Your task to perform on an android device: Go to Yahoo.com Image 0: 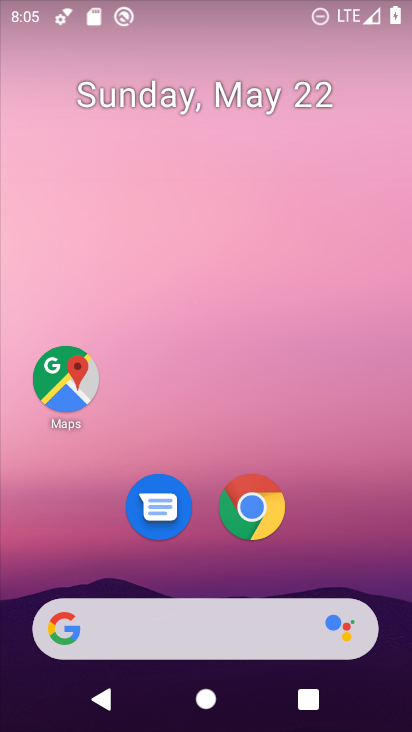
Step 0: click (213, 614)
Your task to perform on an android device: Go to Yahoo.com Image 1: 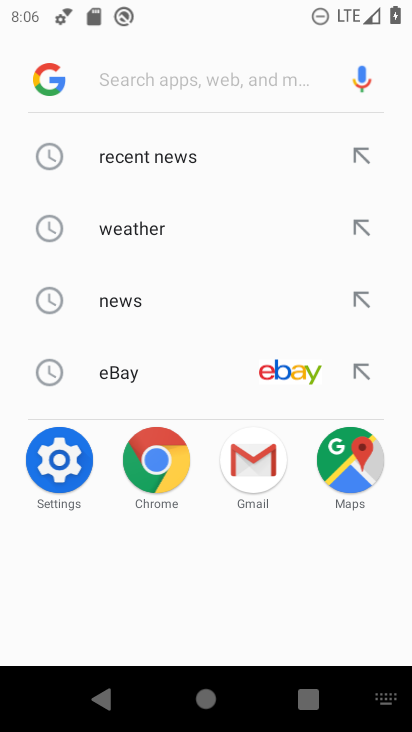
Step 1: type "yahoo.com"
Your task to perform on an android device: Go to Yahoo.com Image 2: 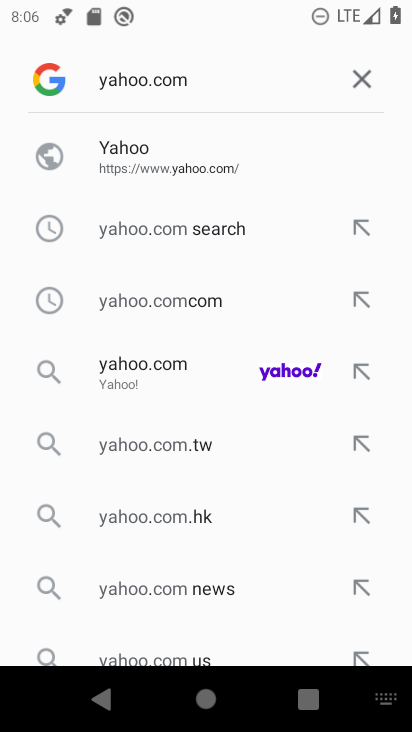
Step 2: click (237, 156)
Your task to perform on an android device: Go to Yahoo.com Image 3: 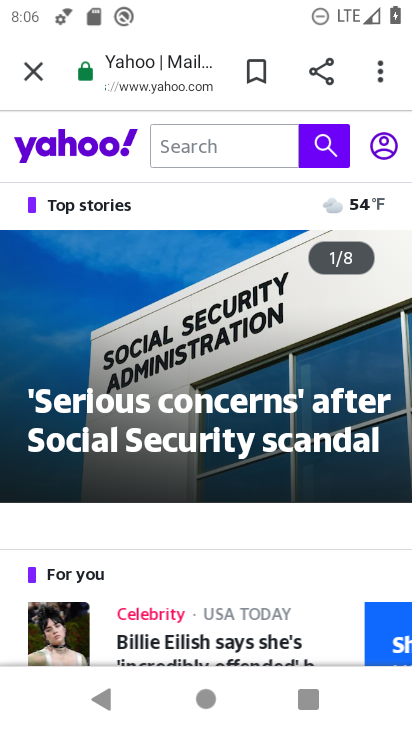
Step 3: task complete